Your task to perform on an android device: Go to display settings Image 0: 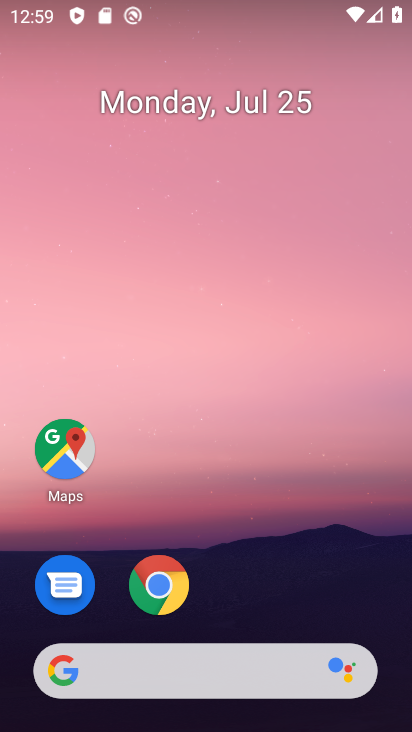
Step 0: drag from (243, 670) to (163, 137)
Your task to perform on an android device: Go to display settings Image 1: 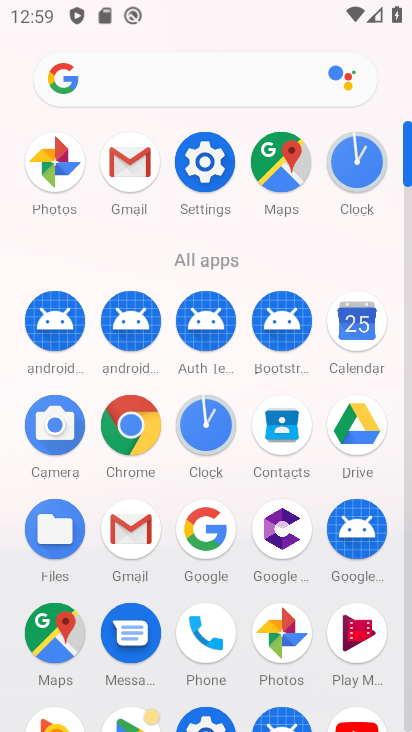
Step 1: click (192, 179)
Your task to perform on an android device: Go to display settings Image 2: 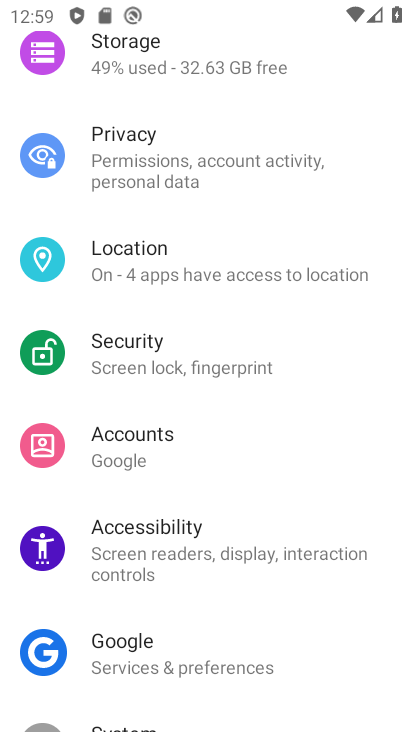
Step 2: drag from (107, 157) to (84, 590)
Your task to perform on an android device: Go to display settings Image 3: 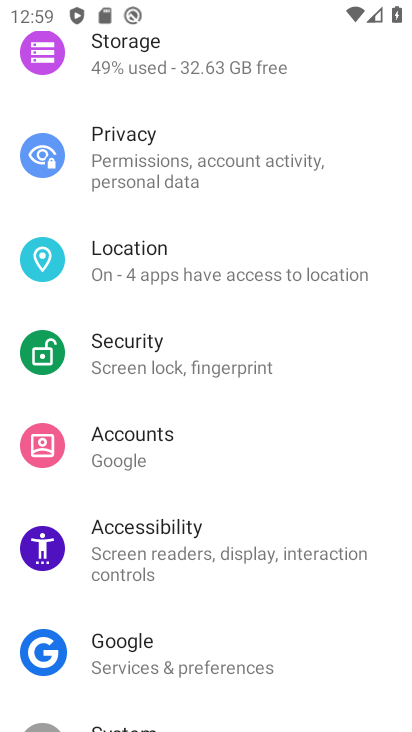
Step 3: drag from (190, 159) to (180, 508)
Your task to perform on an android device: Go to display settings Image 4: 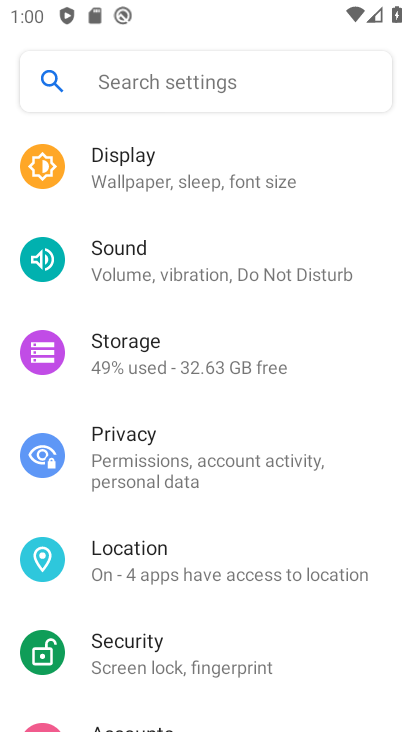
Step 4: click (124, 183)
Your task to perform on an android device: Go to display settings Image 5: 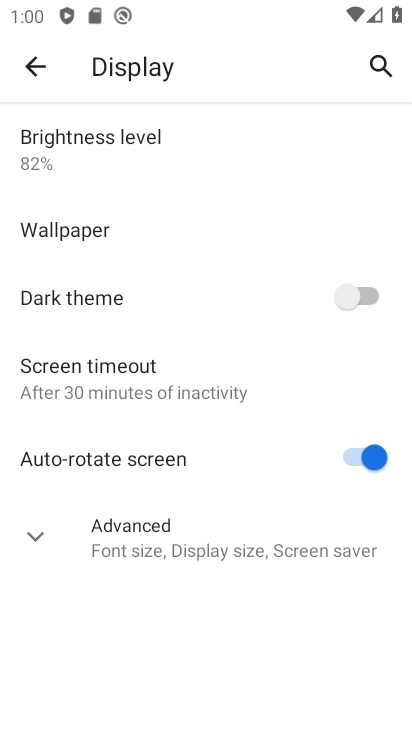
Step 5: task complete